Your task to perform on an android device: Empty the shopping cart on costco.com. Image 0: 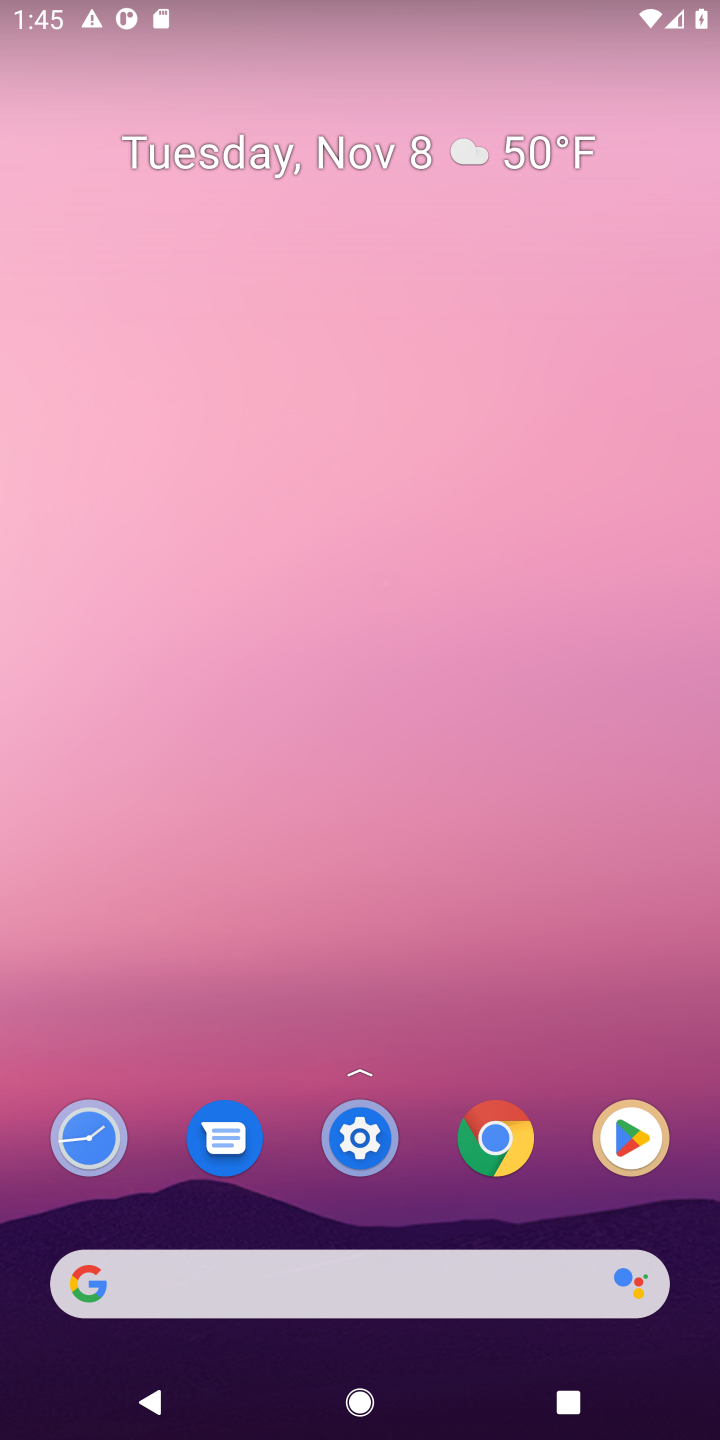
Step 0: click (409, 1271)
Your task to perform on an android device: Empty the shopping cart on costco.com. Image 1: 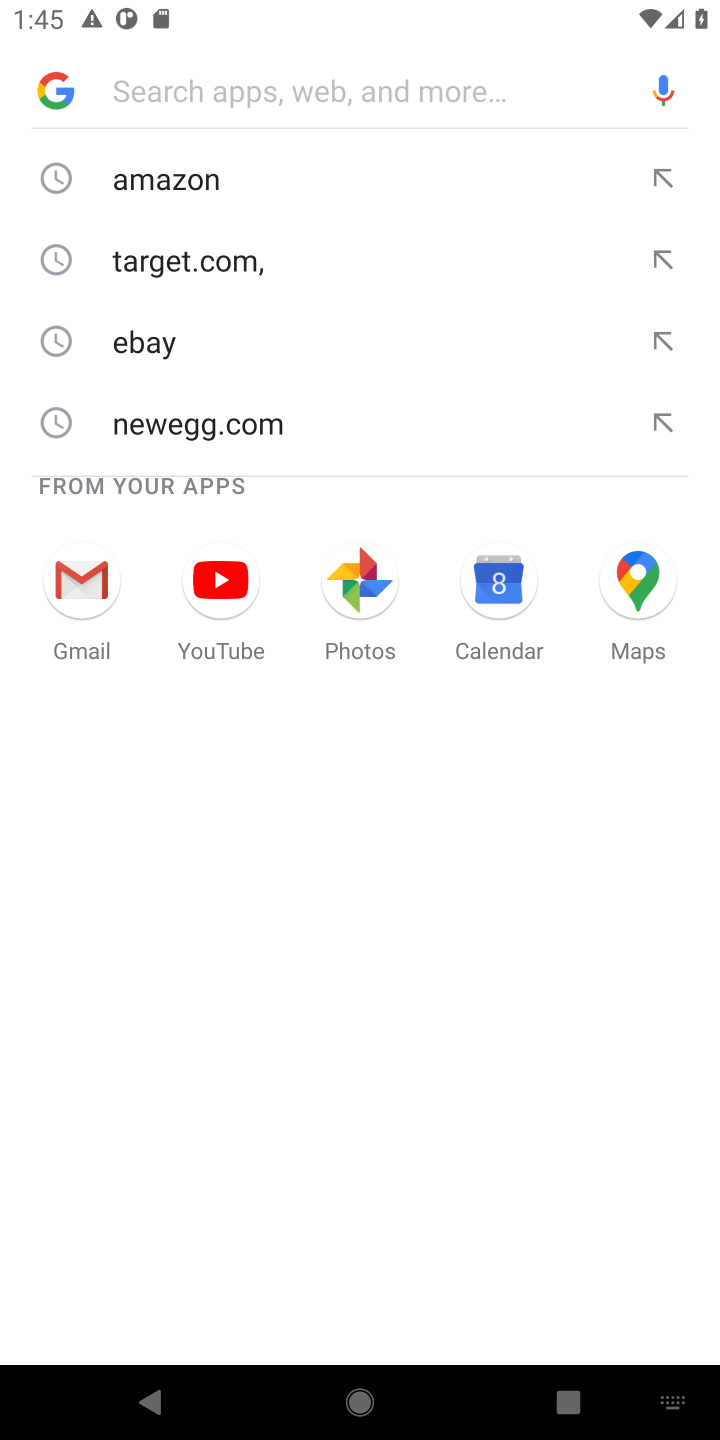
Step 1: type "costco"
Your task to perform on an android device: Empty the shopping cart on costco.com. Image 2: 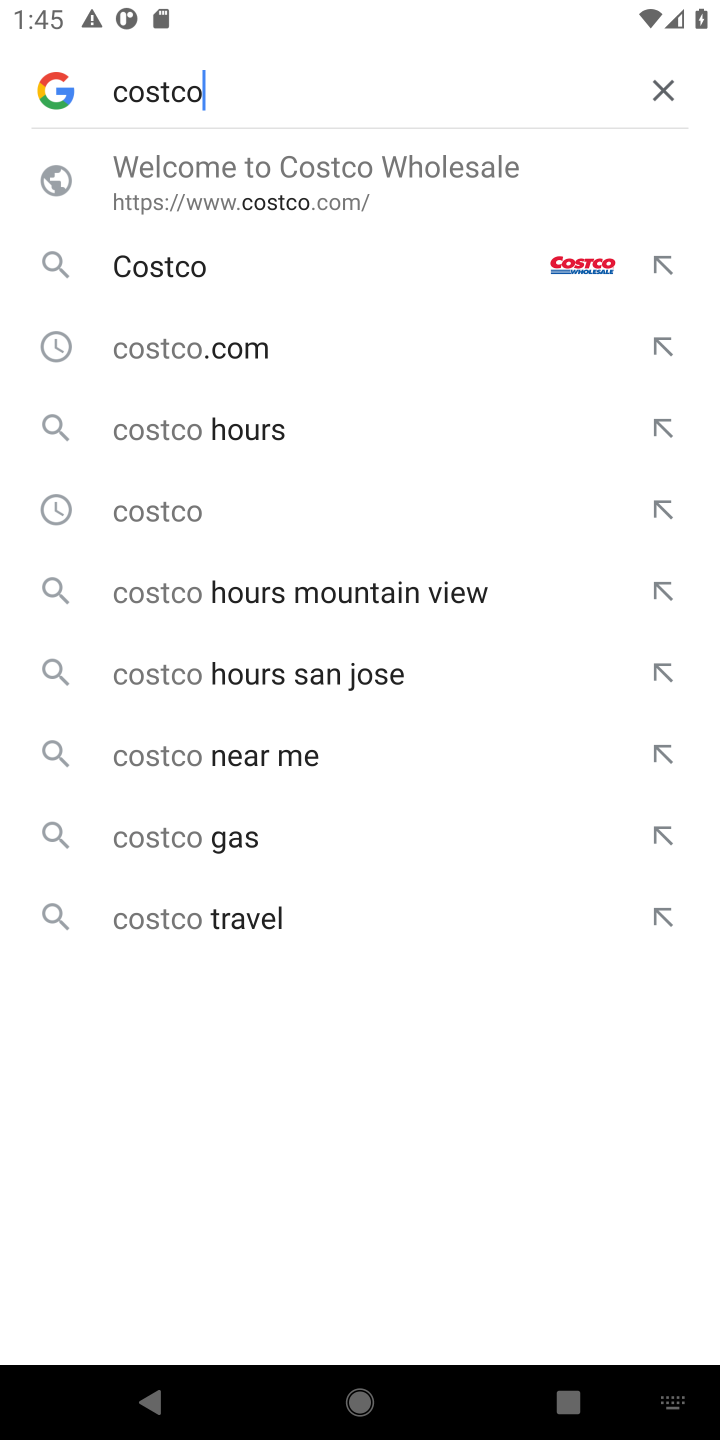
Step 2: click (278, 204)
Your task to perform on an android device: Empty the shopping cart on costco.com. Image 3: 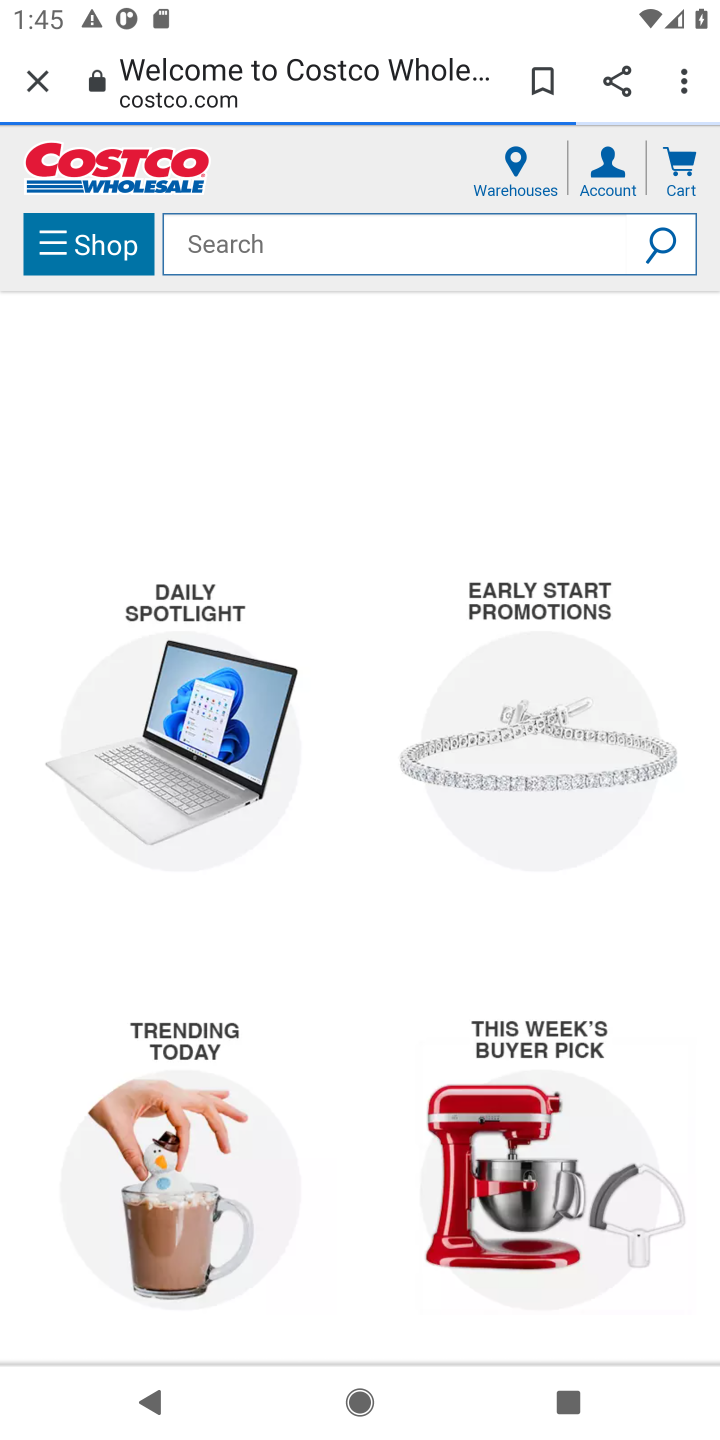
Step 3: task complete